Your task to perform on an android device: Go to privacy settings Image 0: 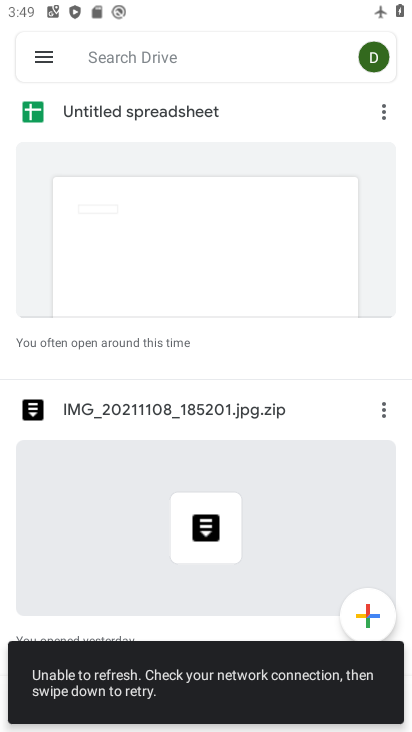
Step 0: press home button
Your task to perform on an android device: Go to privacy settings Image 1: 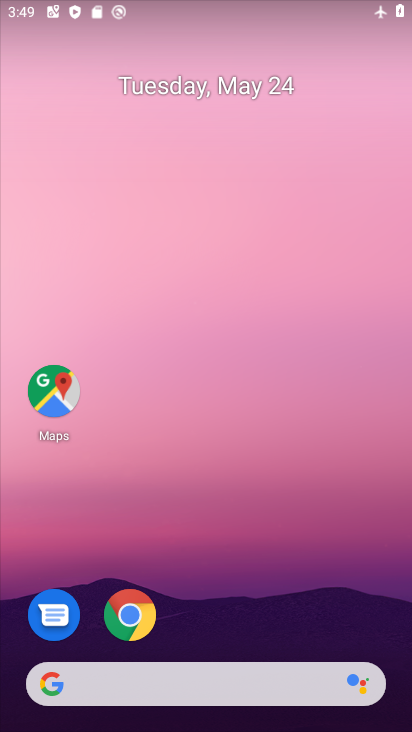
Step 1: drag from (205, 715) to (205, 91)
Your task to perform on an android device: Go to privacy settings Image 2: 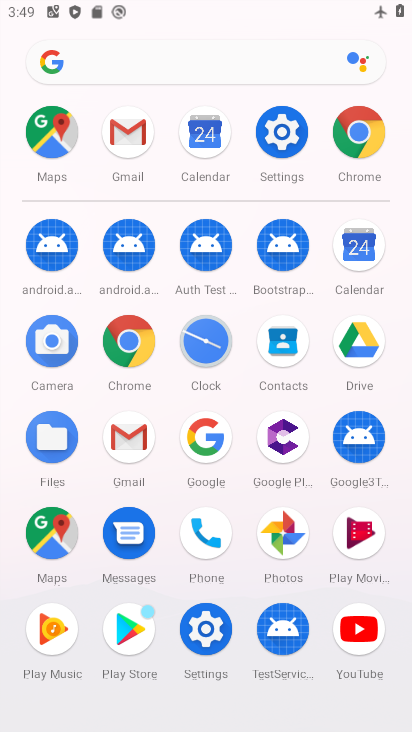
Step 2: click (284, 128)
Your task to perform on an android device: Go to privacy settings Image 3: 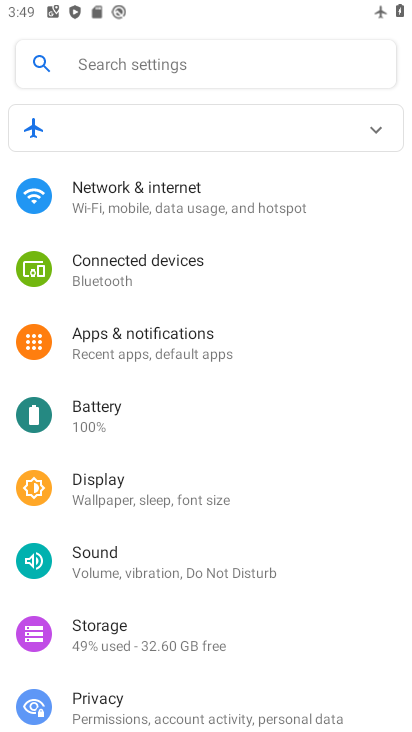
Step 3: click (85, 699)
Your task to perform on an android device: Go to privacy settings Image 4: 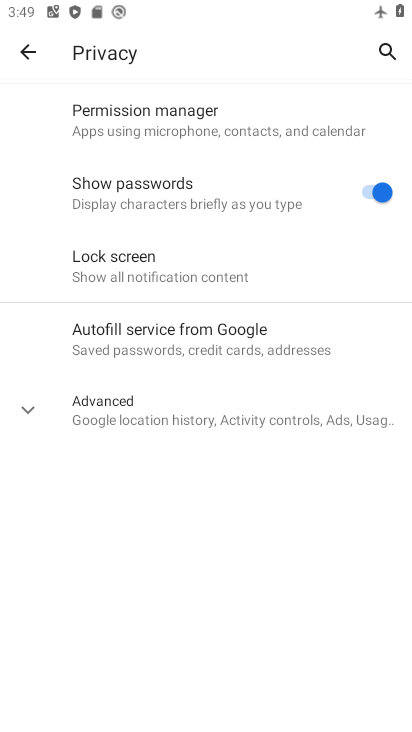
Step 4: task complete